Your task to perform on an android device: set the timer Image 0: 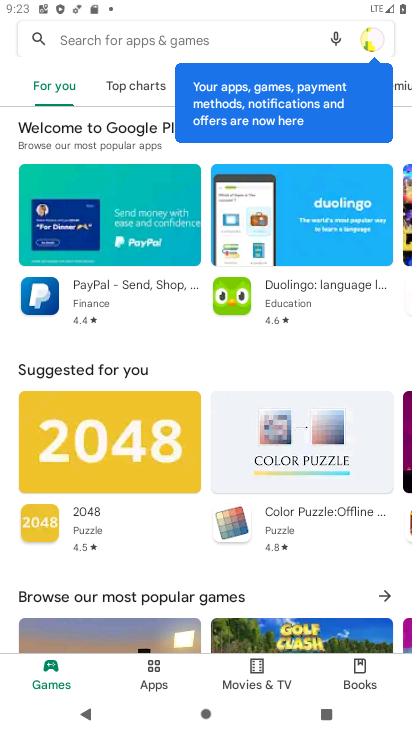
Step 0: press home button
Your task to perform on an android device: set the timer Image 1: 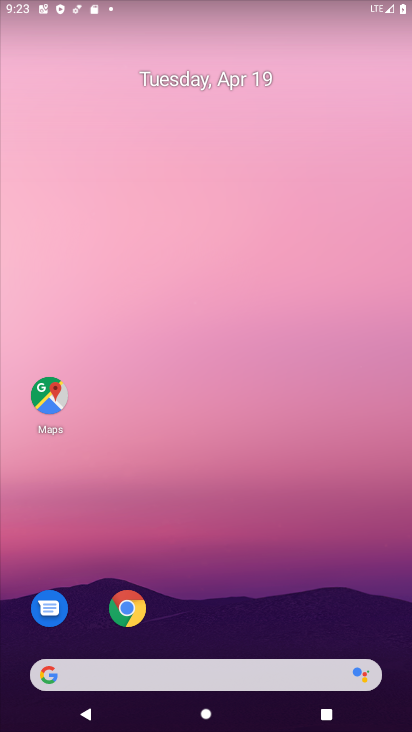
Step 1: drag from (369, 617) to (280, 169)
Your task to perform on an android device: set the timer Image 2: 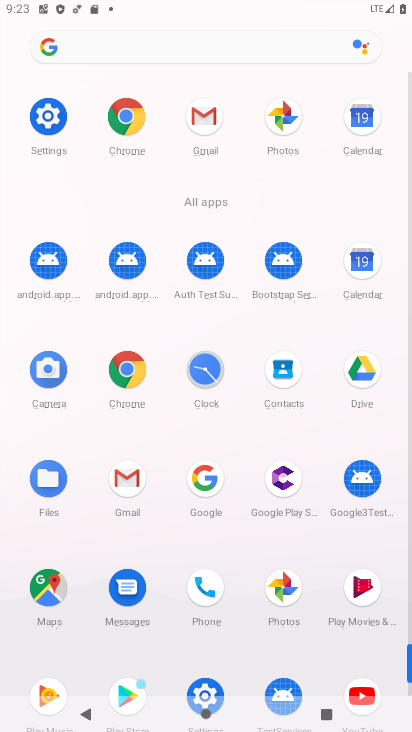
Step 2: click (202, 365)
Your task to perform on an android device: set the timer Image 3: 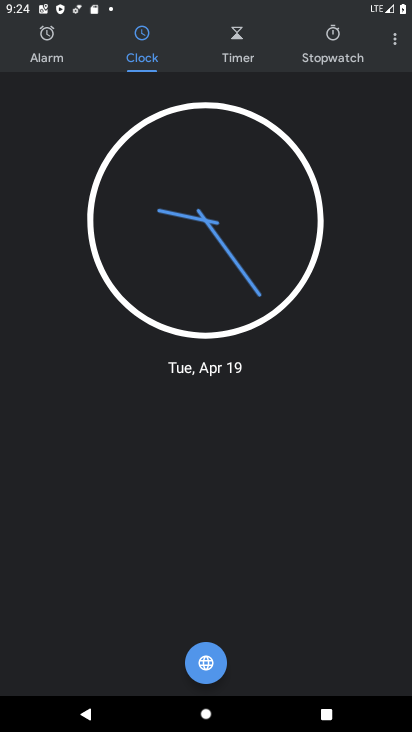
Step 3: click (230, 48)
Your task to perform on an android device: set the timer Image 4: 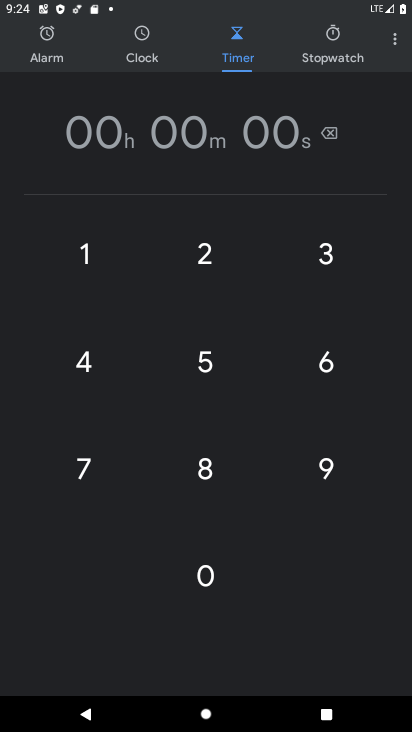
Step 4: click (85, 259)
Your task to perform on an android device: set the timer Image 5: 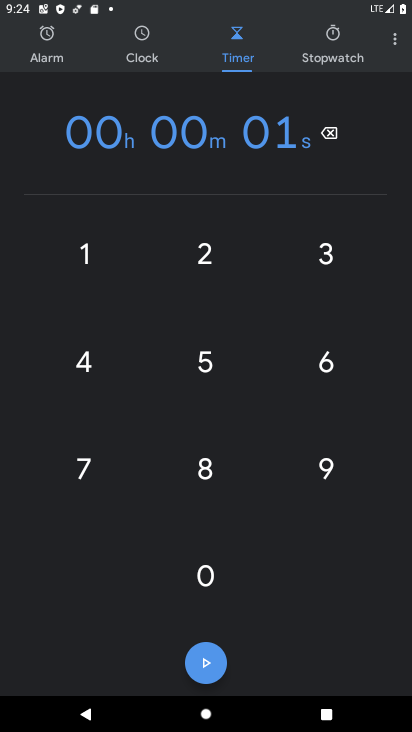
Step 5: click (324, 254)
Your task to perform on an android device: set the timer Image 6: 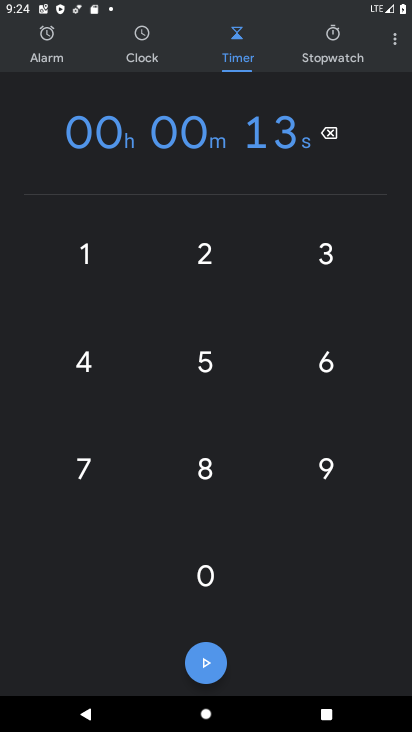
Step 6: click (208, 567)
Your task to perform on an android device: set the timer Image 7: 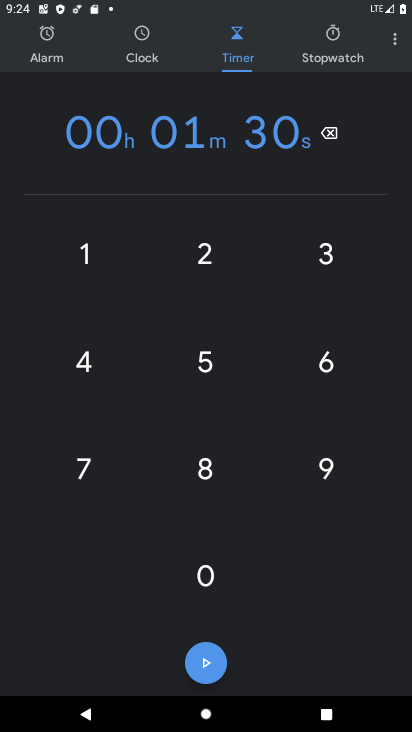
Step 7: click (208, 567)
Your task to perform on an android device: set the timer Image 8: 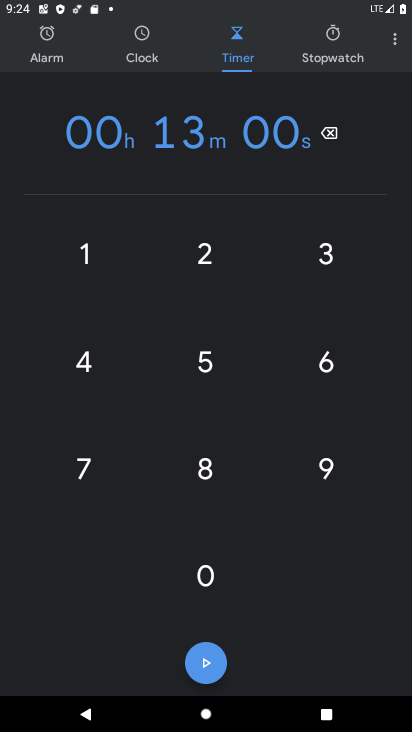
Step 8: click (208, 567)
Your task to perform on an android device: set the timer Image 9: 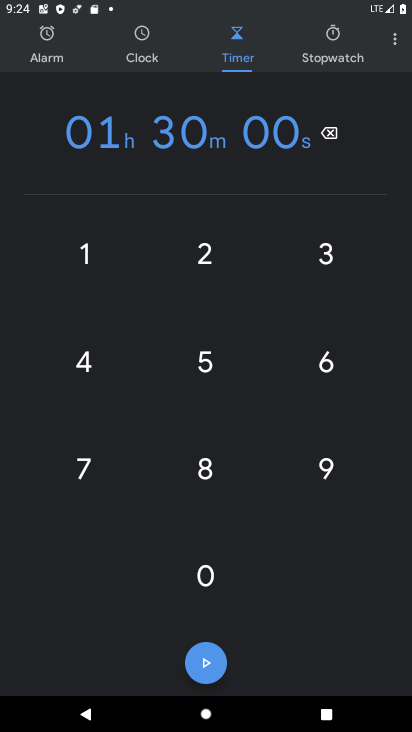
Step 9: task complete